Your task to perform on an android device: Open Reddit Image 0: 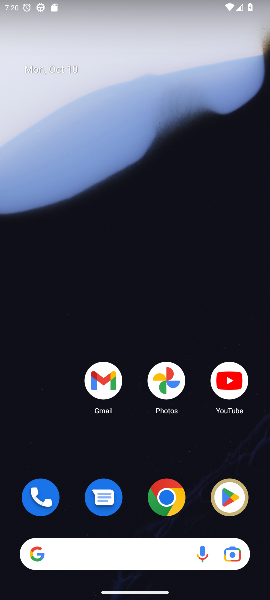
Step 0: drag from (68, 475) to (89, 183)
Your task to perform on an android device: Open Reddit Image 1: 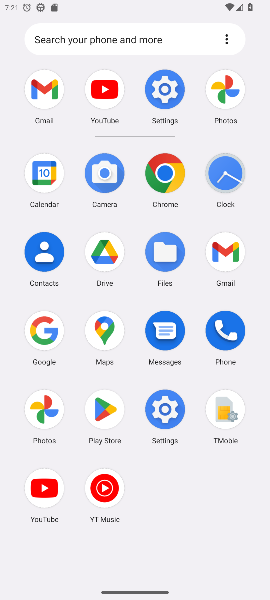
Step 1: click (36, 319)
Your task to perform on an android device: Open Reddit Image 2: 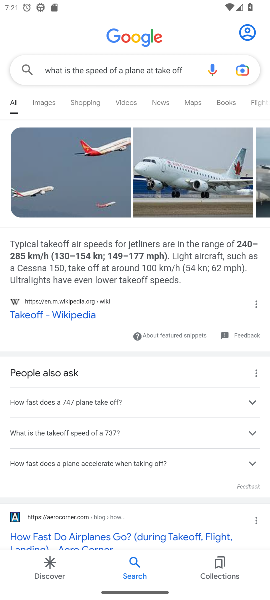
Step 2: click (165, 59)
Your task to perform on an android device: Open Reddit Image 3: 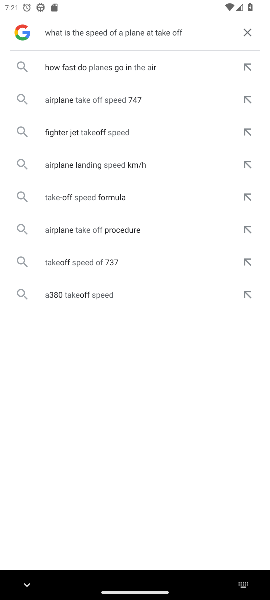
Step 3: click (238, 29)
Your task to perform on an android device: Open Reddit Image 4: 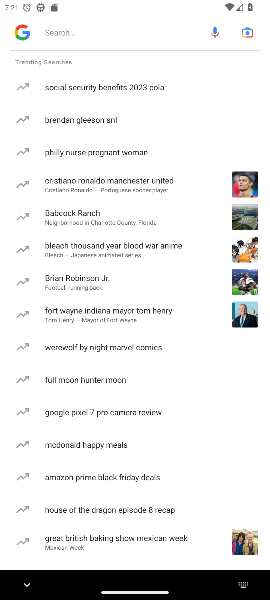
Step 4: click (124, 26)
Your task to perform on an android device: Open Reddit Image 5: 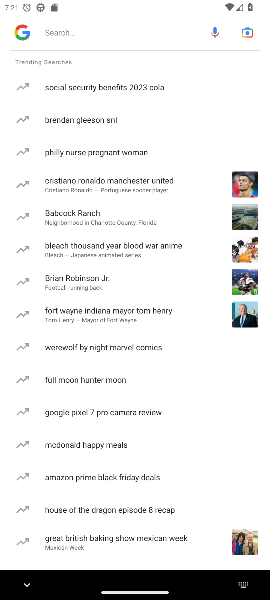
Step 5: type "Open Reddit "
Your task to perform on an android device: Open Reddit Image 6: 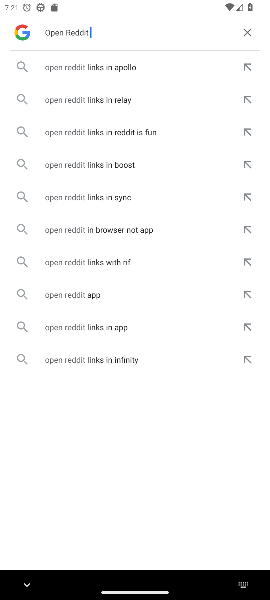
Step 6: click (81, 76)
Your task to perform on an android device: Open Reddit Image 7: 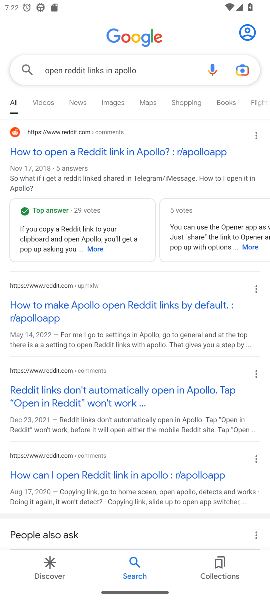
Step 7: click (76, 154)
Your task to perform on an android device: Open Reddit Image 8: 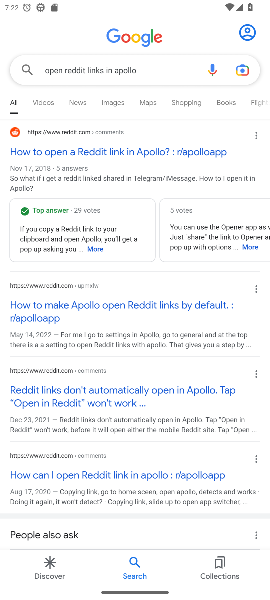
Step 8: click (79, 151)
Your task to perform on an android device: Open Reddit Image 9: 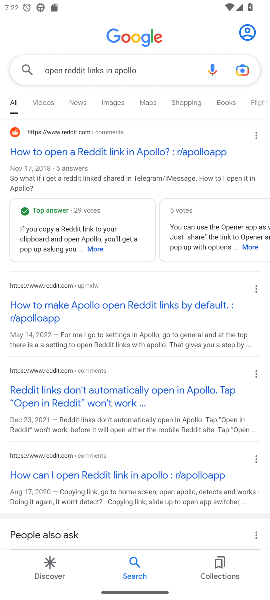
Step 9: click (79, 151)
Your task to perform on an android device: Open Reddit Image 10: 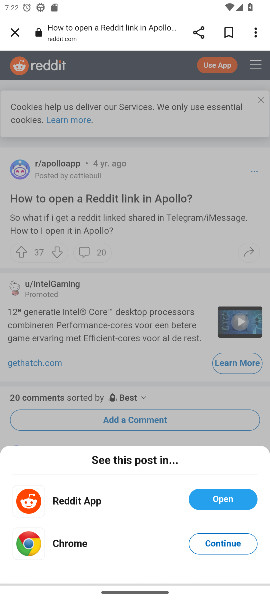
Step 10: click (222, 497)
Your task to perform on an android device: Open Reddit Image 11: 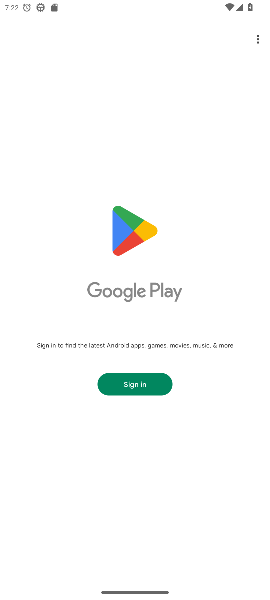
Step 11: task complete